Your task to perform on an android device: open chrome privacy settings Image 0: 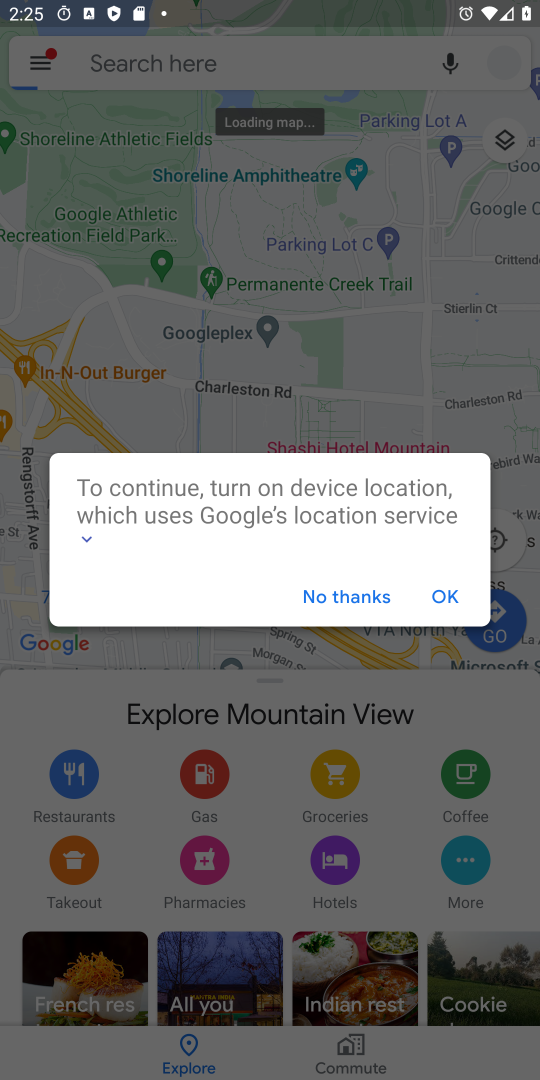
Step 0: click (433, 598)
Your task to perform on an android device: open chrome privacy settings Image 1: 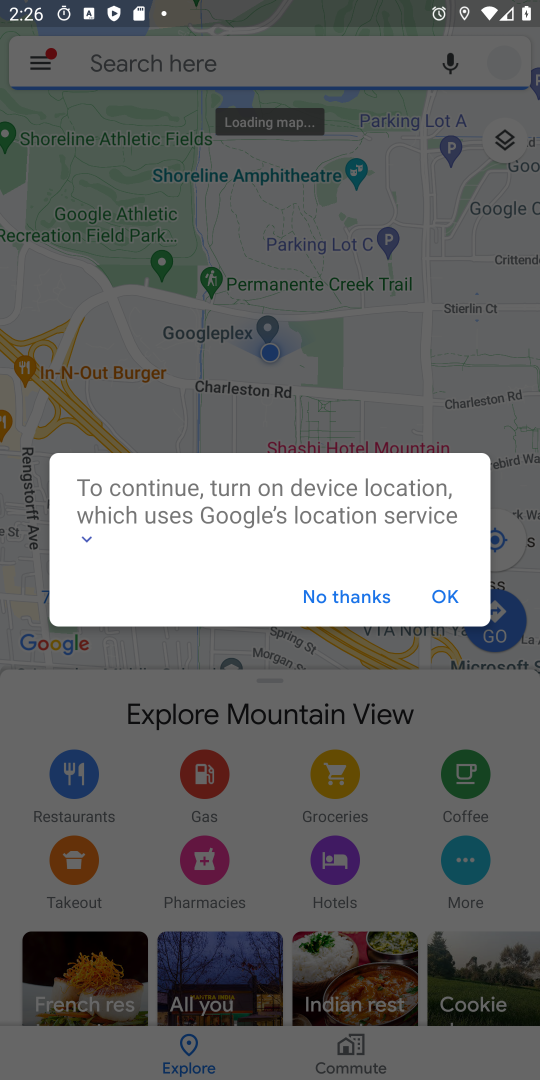
Step 1: click (447, 596)
Your task to perform on an android device: open chrome privacy settings Image 2: 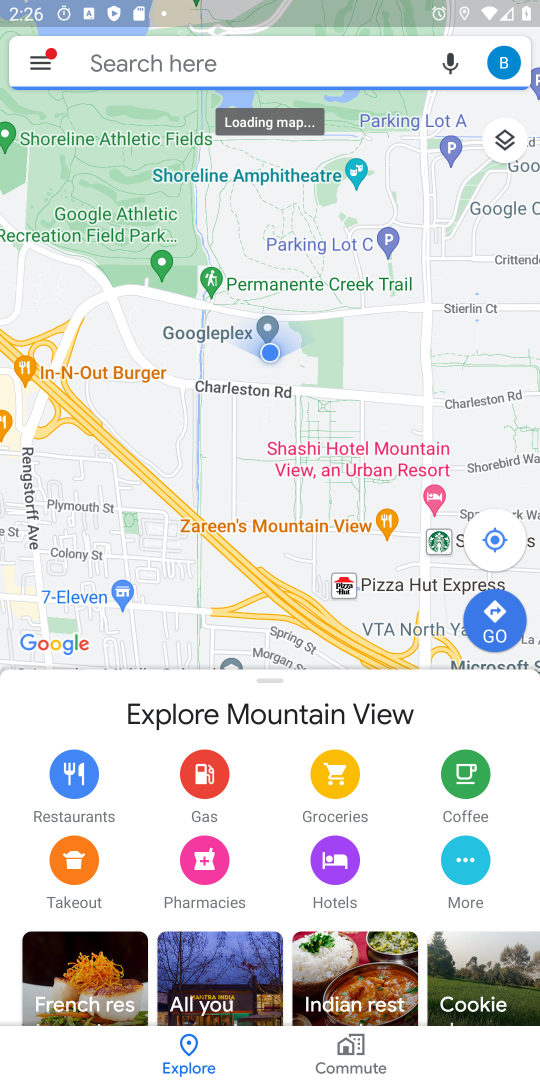
Step 2: click (275, 67)
Your task to perform on an android device: open chrome privacy settings Image 3: 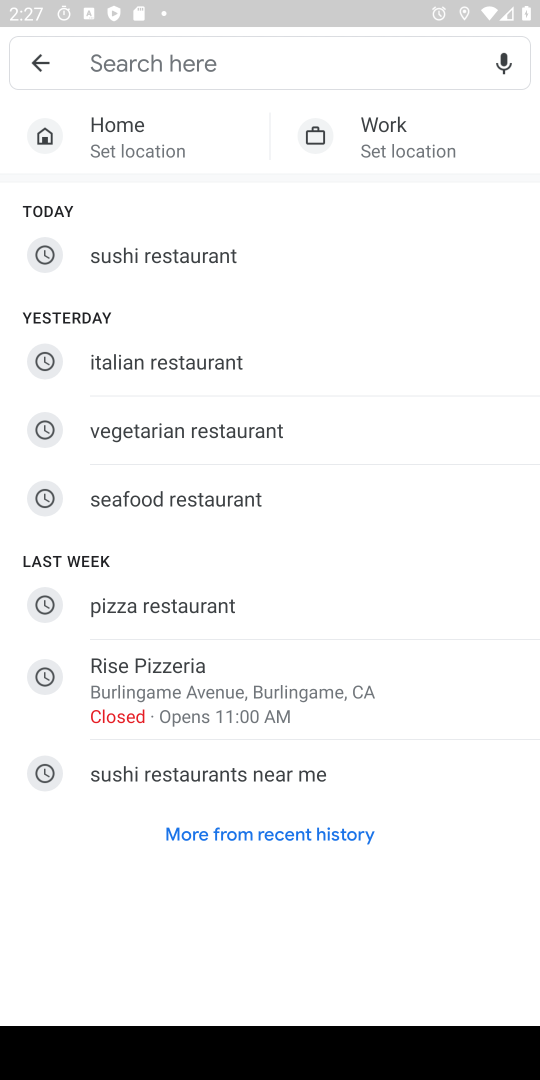
Step 3: press home button
Your task to perform on an android device: open chrome privacy settings Image 4: 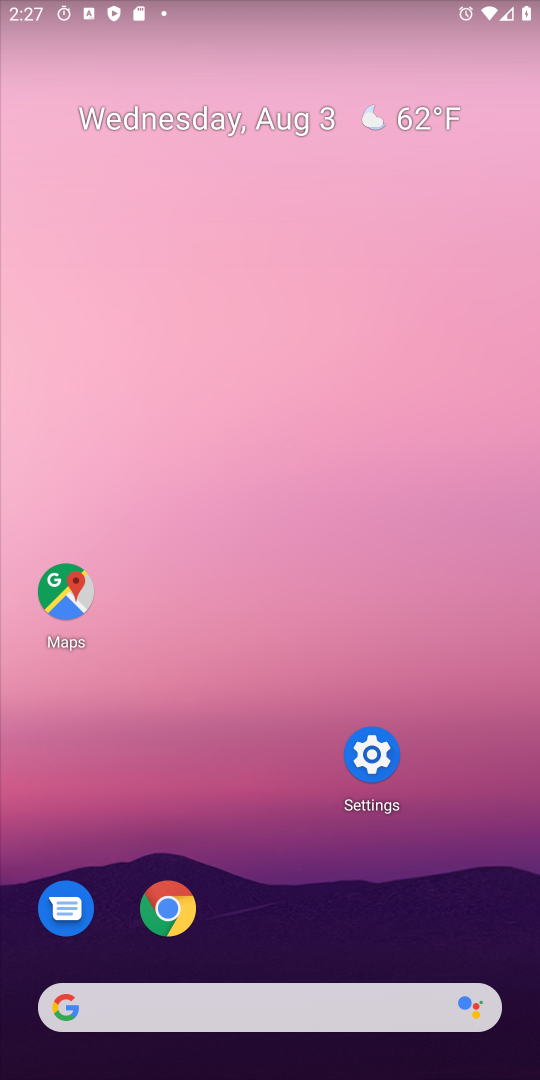
Step 4: click (181, 917)
Your task to perform on an android device: open chrome privacy settings Image 5: 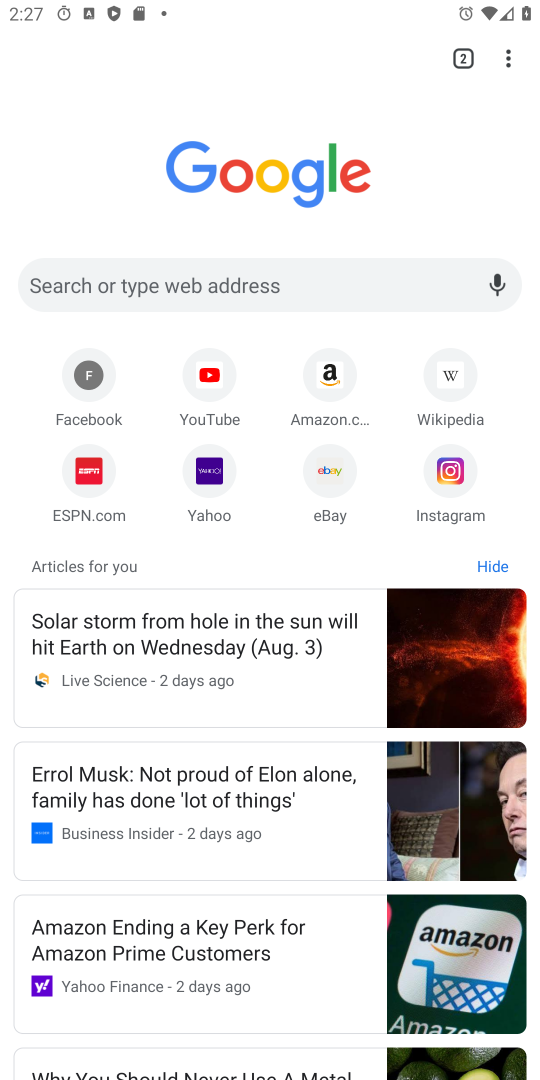
Step 5: click (516, 60)
Your task to perform on an android device: open chrome privacy settings Image 6: 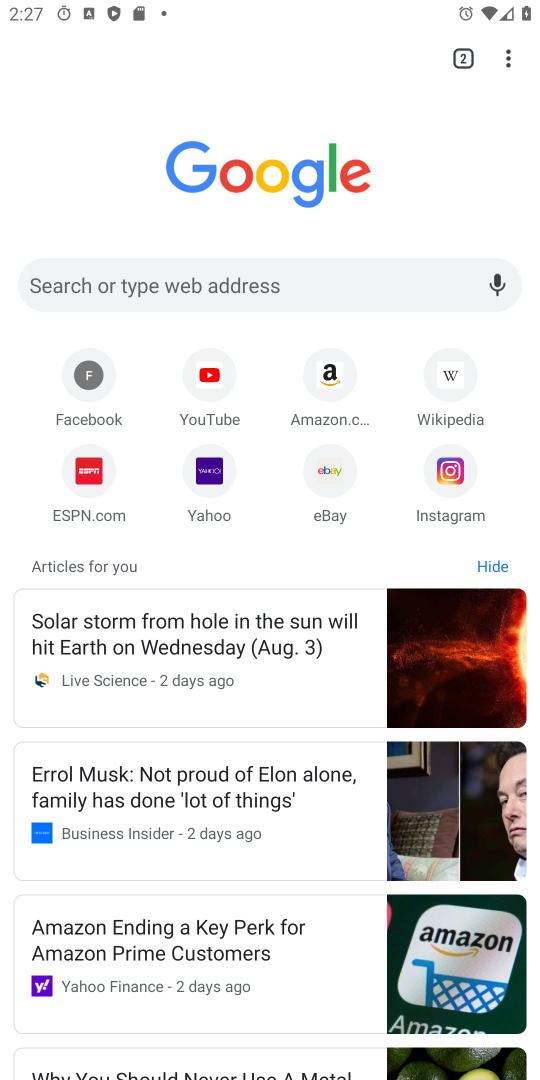
Step 6: click (510, 55)
Your task to perform on an android device: open chrome privacy settings Image 7: 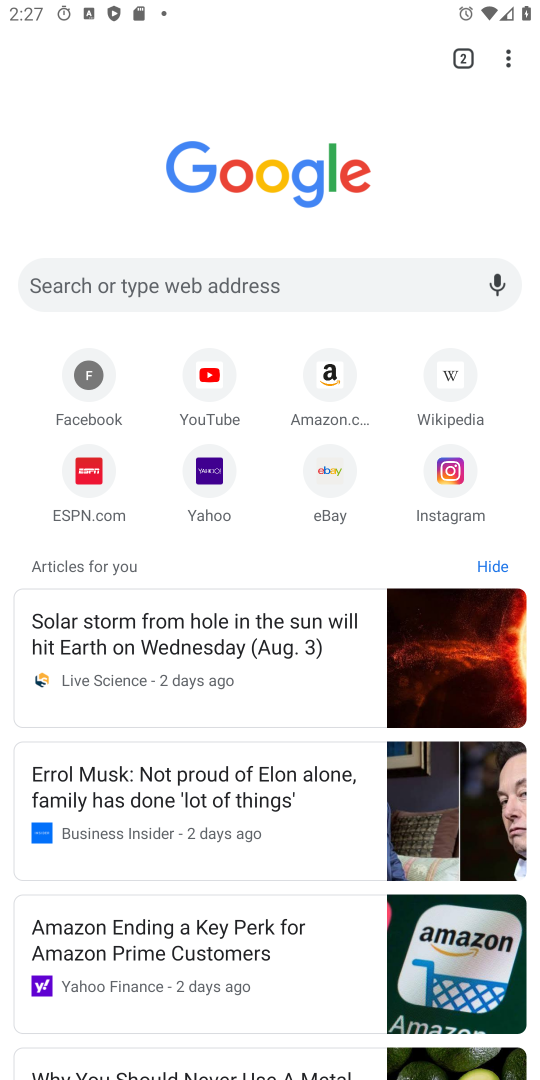
Step 7: click (505, 60)
Your task to perform on an android device: open chrome privacy settings Image 8: 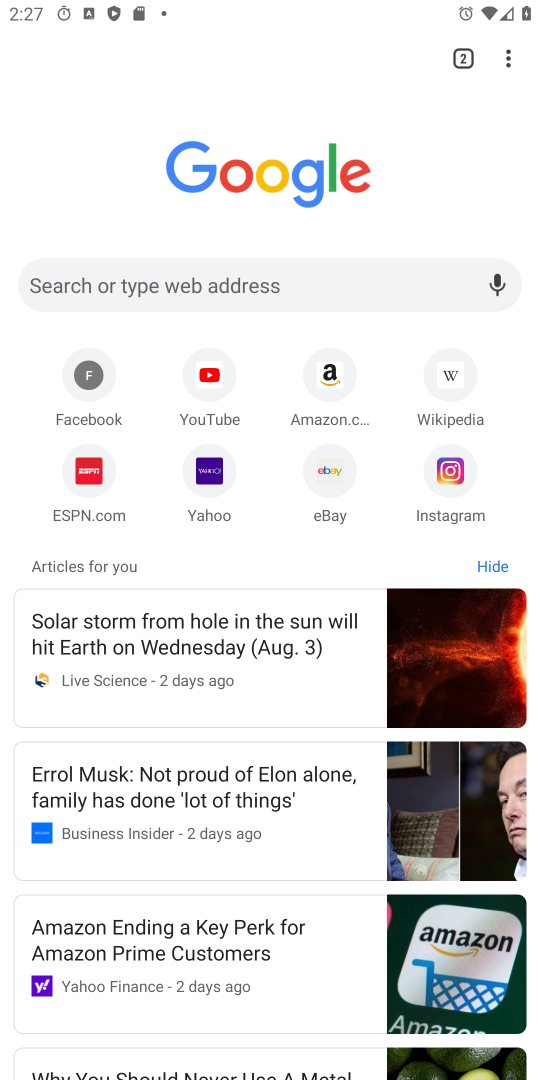
Step 8: click (504, 54)
Your task to perform on an android device: open chrome privacy settings Image 9: 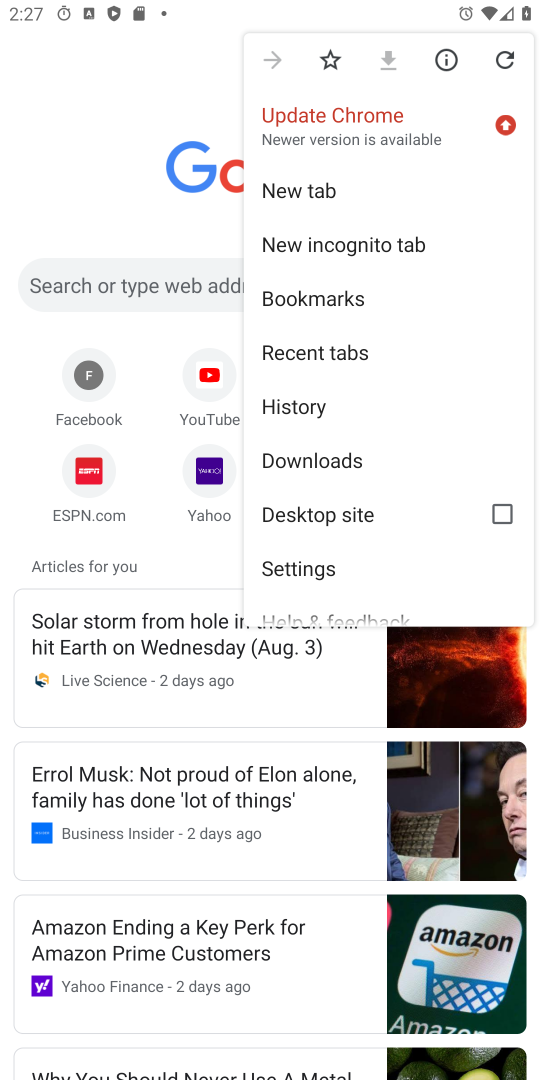
Step 9: click (338, 564)
Your task to perform on an android device: open chrome privacy settings Image 10: 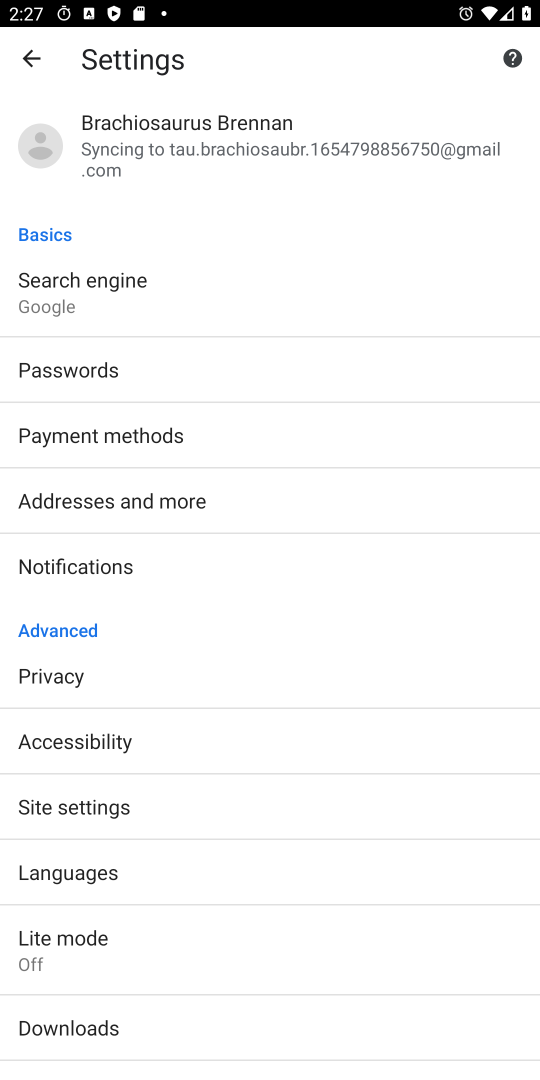
Step 10: click (167, 682)
Your task to perform on an android device: open chrome privacy settings Image 11: 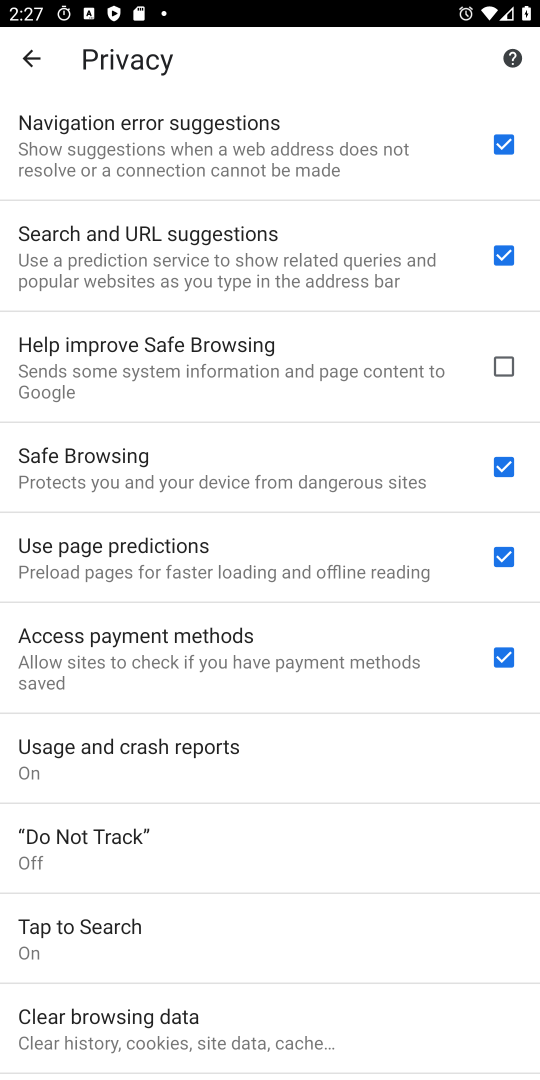
Step 11: task complete